Your task to perform on an android device: add a label to a message in the gmail app Image 0: 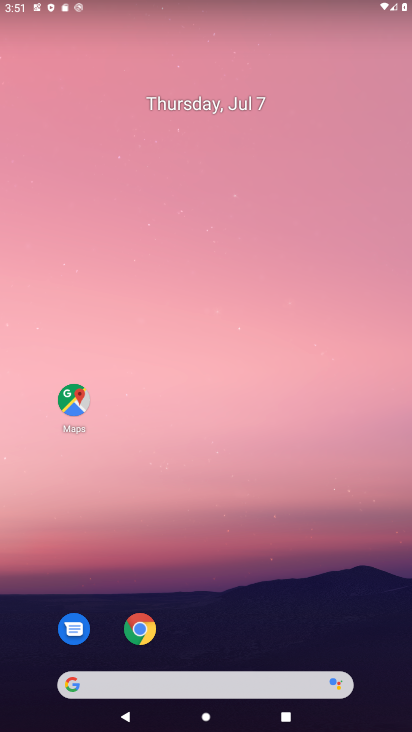
Step 0: drag from (235, 610) to (261, 229)
Your task to perform on an android device: add a label to a message in the gmail app Image 1: 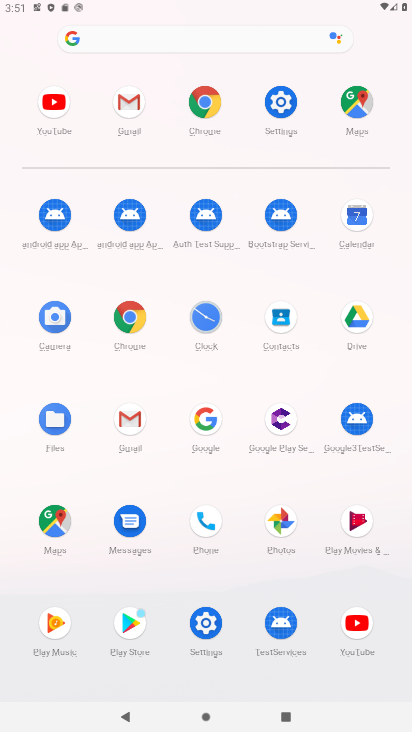
Step 1: click (132, 419)
Your task to perform on an android device: add a label to a message in the gmail app Image 2: 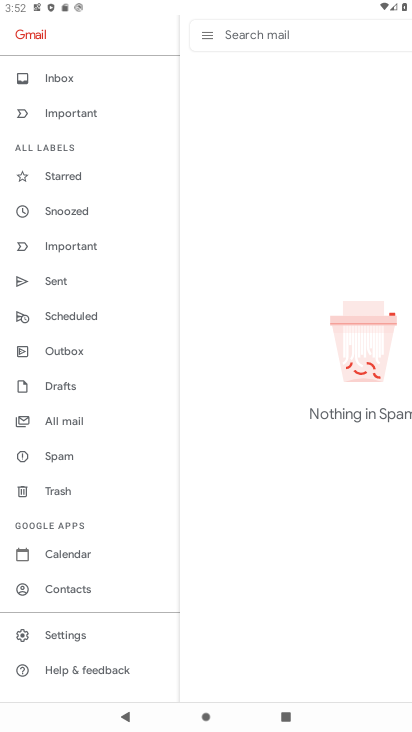
Step 2: click (73, 628)
Your task to perform on an android device: add a label to a message in the gmail app Image 3: 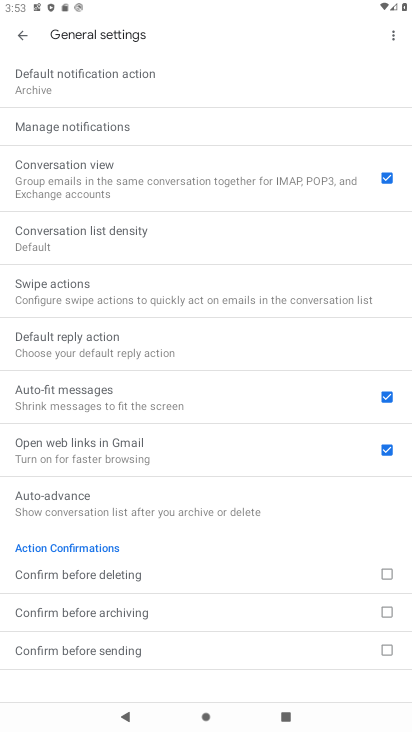
Step 3: task complete